Your task to perform on an android device: Play the last video I watched on Youtube Image 0: 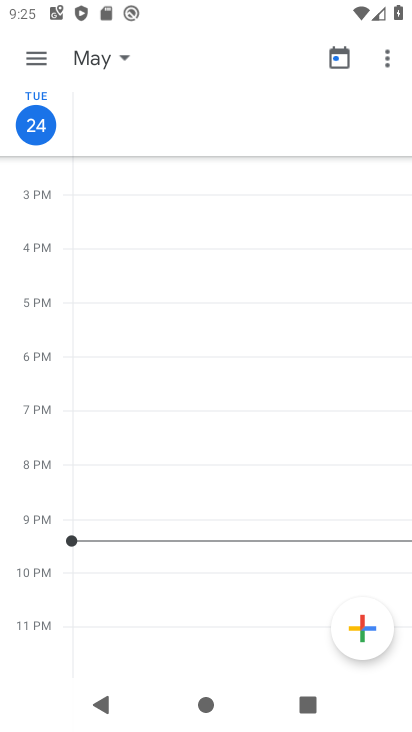
Step 0: press home button
Your task to perform on an android device: Play the last video I watched on Youtube Image 1: 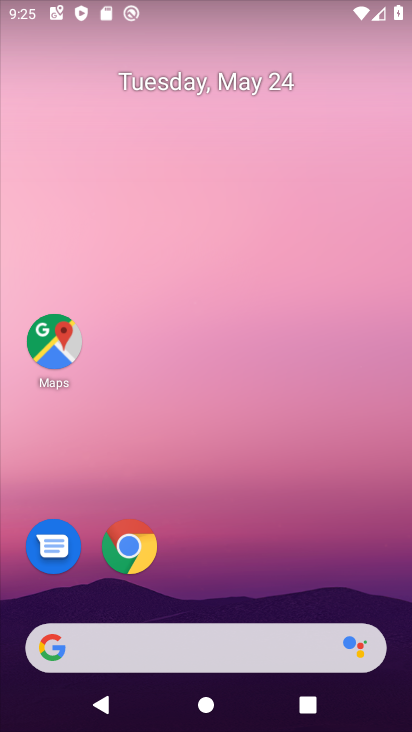
Step 1: drag from (246, 551) to (319, 29)
Your task to perform on an android device: Play the last video I watched on Youtube Image 2: 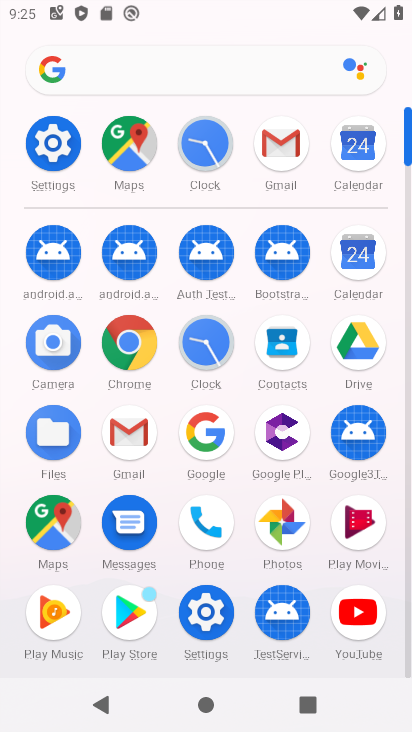
Step 2: click (359, 602)
Your task to perform on an android device: Play the last video I watched on Youtube Image 3: 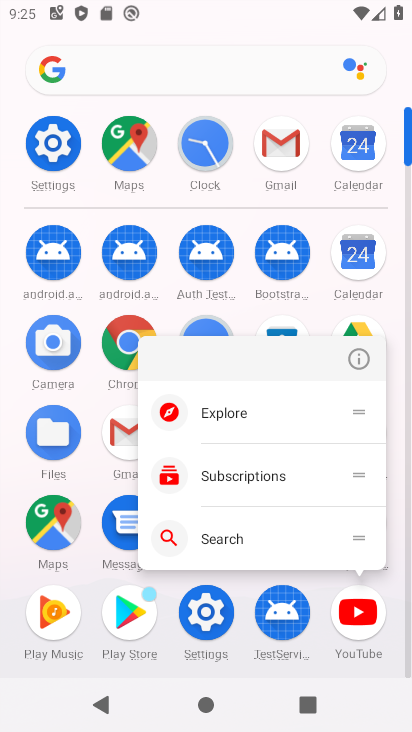
Step 3: click (359, 605)
Your task to perform on an android device: Play the last video I watched on Youtube Image 4: 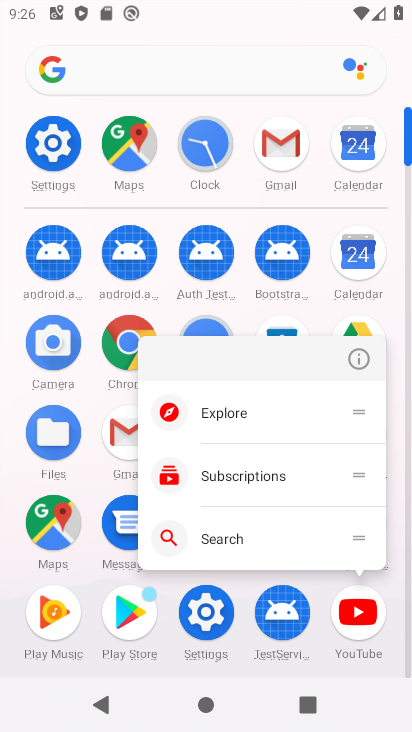
Step 4: click (361, 610)
Your task to perform on an android device: Play the last video I watched on Youtube Image 5: 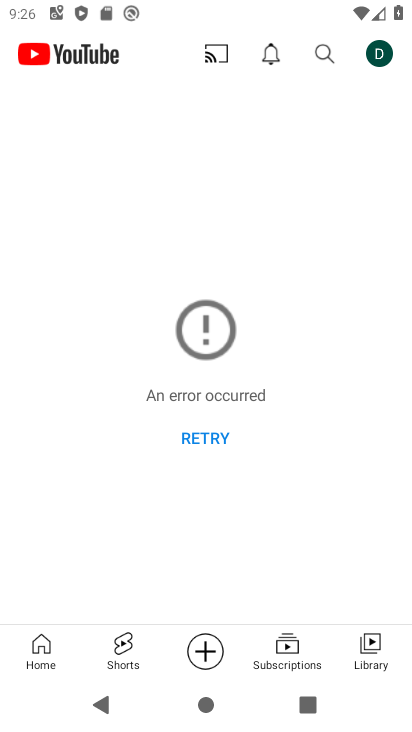
Step 5: click (371, 650)
Your task to perform on an android device: Play the last video I watched on Youtube Image 6: 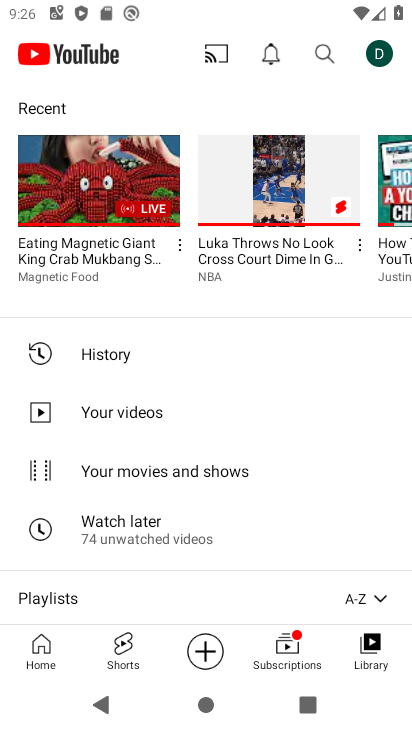
Step 6: click (117, 354)
Your task to perform on an android device: Play the last video I watched on Youtube Image 7: 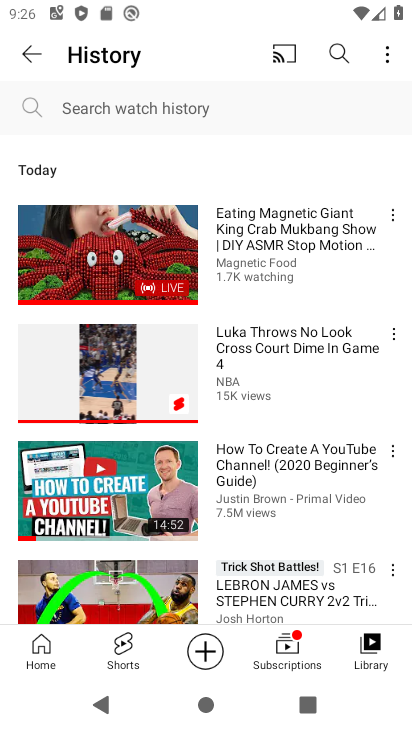
Step 7: click (112, 258)
Your task to perform on an android device: Play the last video I watched on Youtube Image 8: 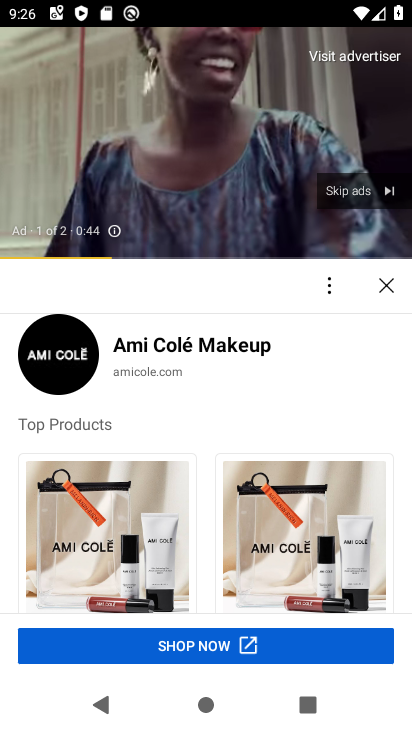
Step 8: click (346, 188)
Your task to perform on an android device: Play the last video I watched on Youtube Image 9: 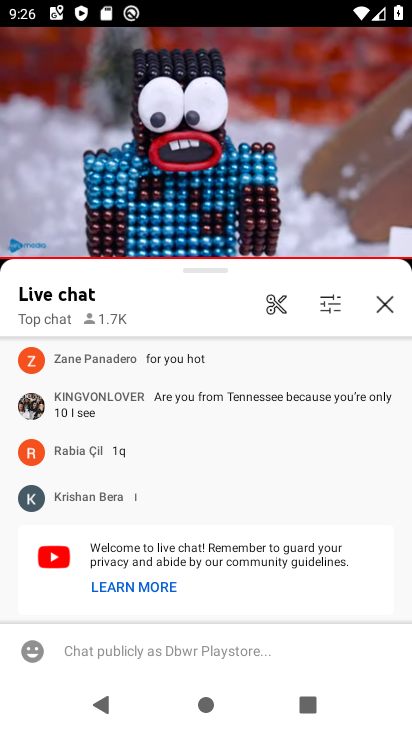
Step 9: task complete